Your task to perform on an android device: turn on priority inbox in the gmail app Image 0: 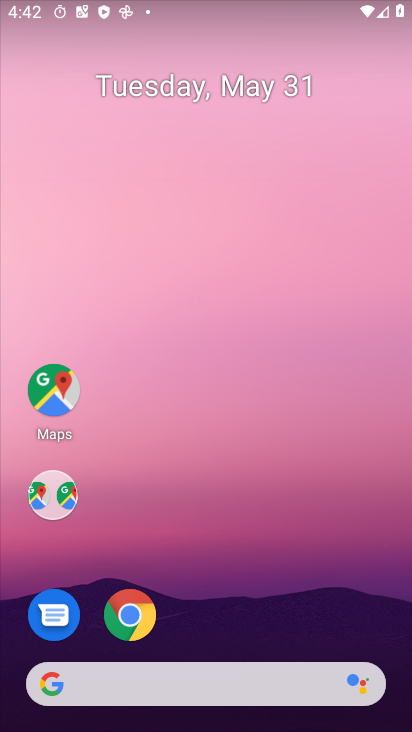
Step 0: drag from (244, 637) to (237, 68)
Your task to perform on an android device: turn on priority inbox in the gmail app Image 1: 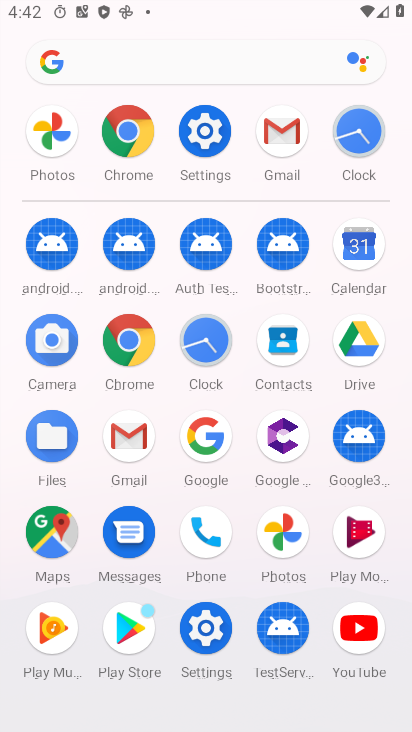
Step 1: click (121, 430)
Your task to perform on an android device: turn on priority inbox in the gmail app Image 2: 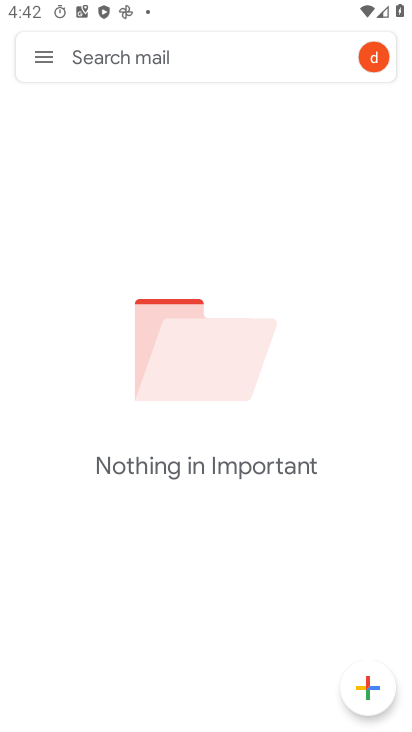
Step 2: click (45, 56)
Your task to perform on an android device: turn on priority inbox in the gmail app Image 3: 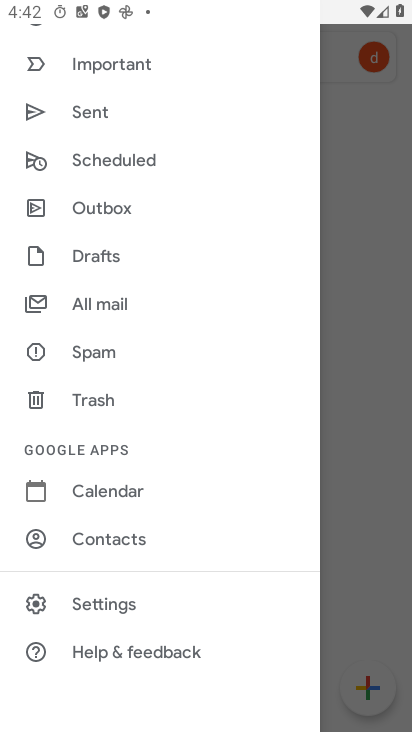
Step 3: click (107, 604)
Your task to perform on an android device: turn on priority inbox in the gmail app Image 4: 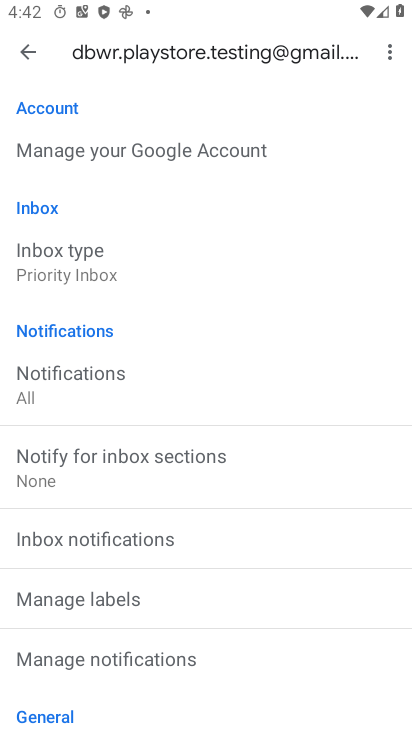
Step 4: click (79, 279)
Your task to perform on an android device: turn on priority inbox in the gmail app Image 5: 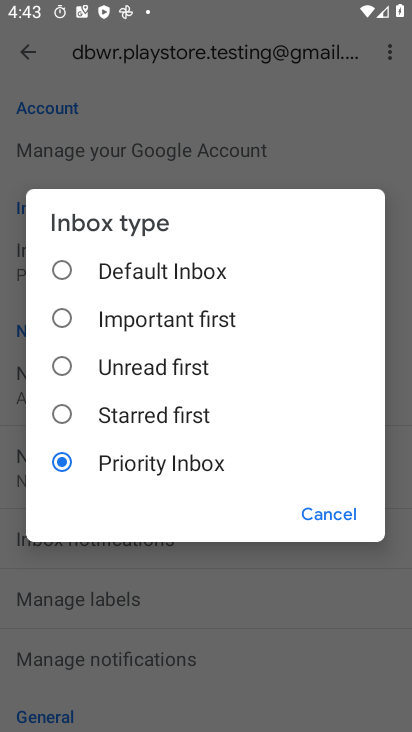
Step 5: click (328, 519)
Your task to perform on an android device: turn on priority inbox in the gmail app Image 6: 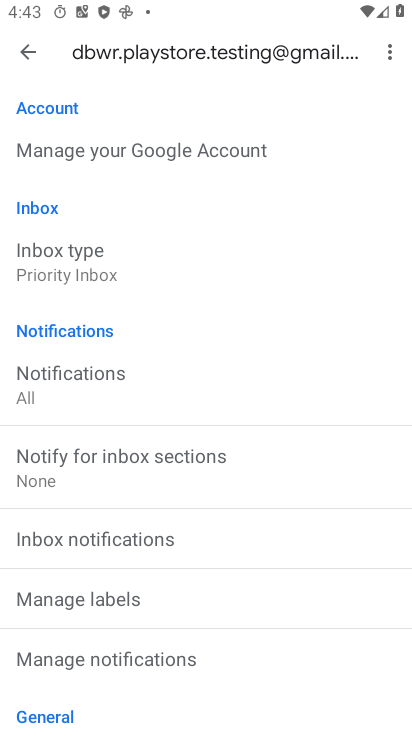
Step 6: task complete